Your task to perform on an android device: Search for pizza restaurants on Maps Image 0: 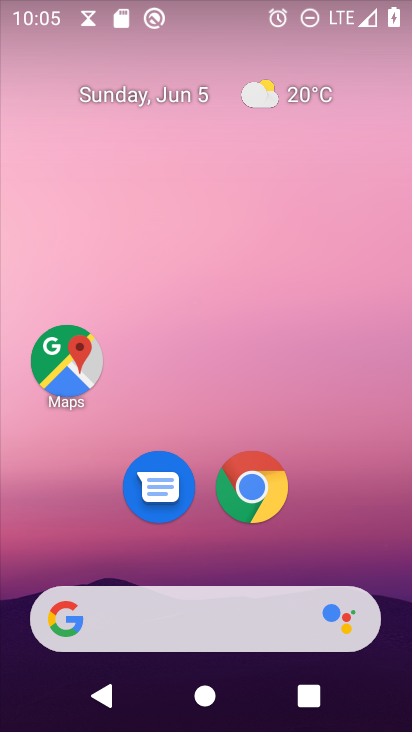
Step 0: click (248, 471)
Your task to perform on an android device: Search for pizza restaurants on Maps Image 1: 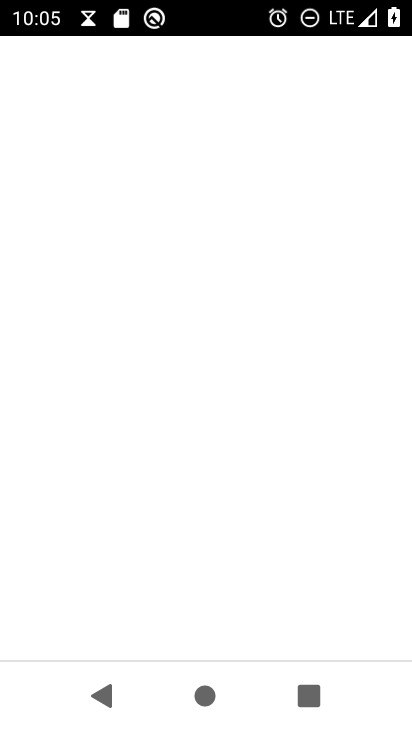
Step 1: press home button
Your task to perform on an android device: Search for pizza restaurants on Maps Image 2: 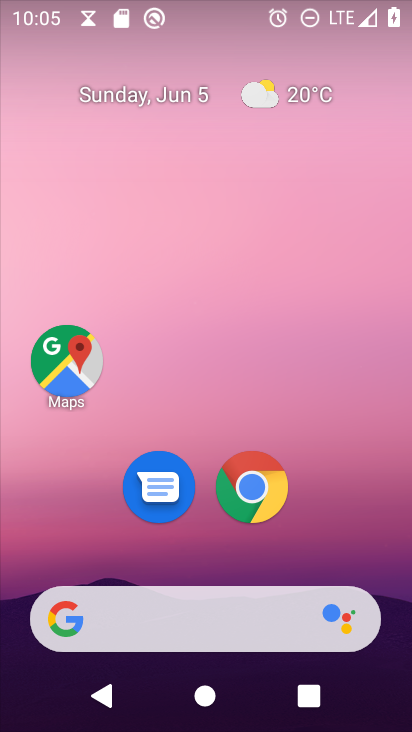
Step 2: click (67, 355)
Your task to perform on an android device: Search for pizza restaurants on Maps Image 3: 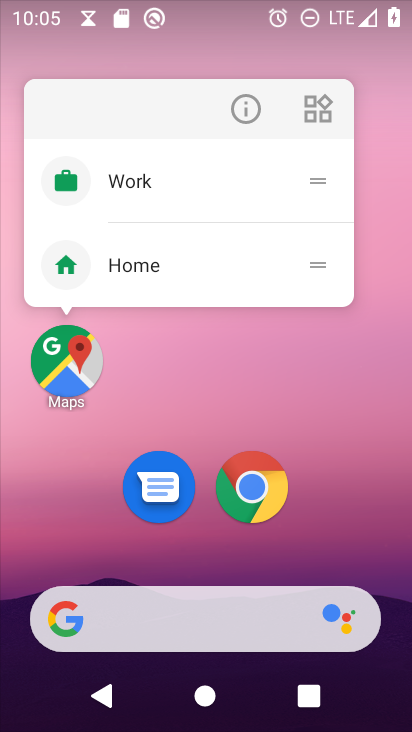
Step 3: click (68, 360)
Your task to perform on an android device: Search for pizza restaurants on Maps Image 4: 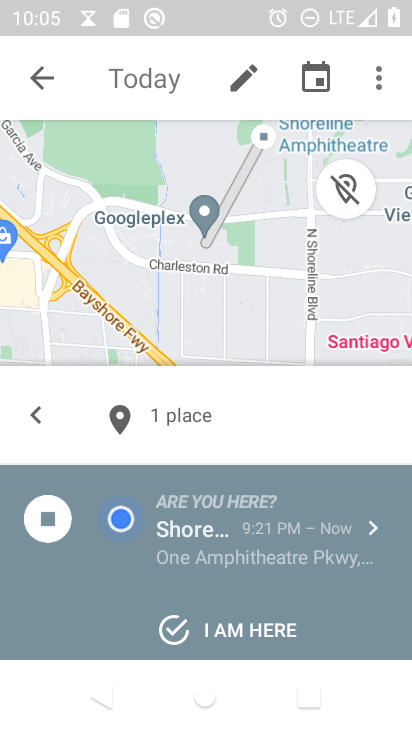
Step 4: click (36, 76)
Your task to perform on an android device: Search for pizza restaurants on Maps Image 5: 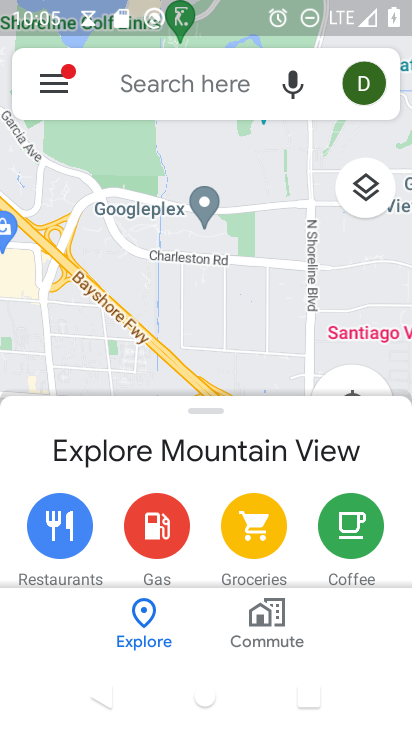
Step 5: click (175, 52)
Your task to perform on an android device: Search for pizza restaurants on Maps Image 6: 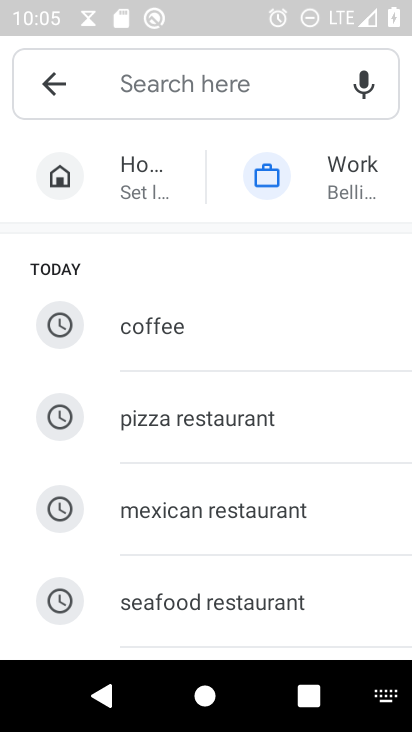
Step 6: click (220, 404)
Your task to perform on an android device: Search for pizza restaurants on Maps Image 7: 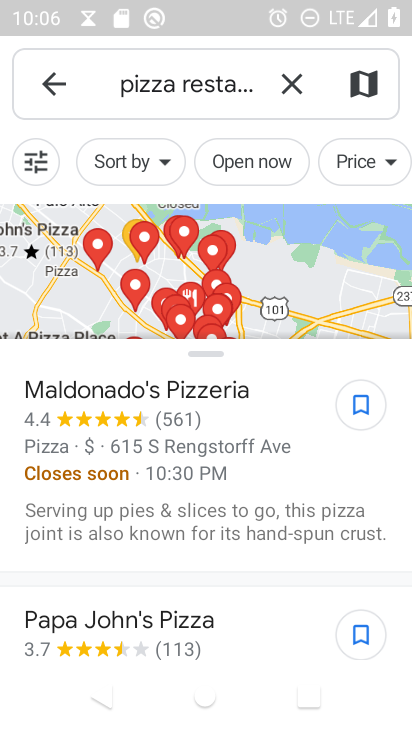
Step 7: task complete